Your task to perform on an android device: Open Maps and search for coffee Image 0: 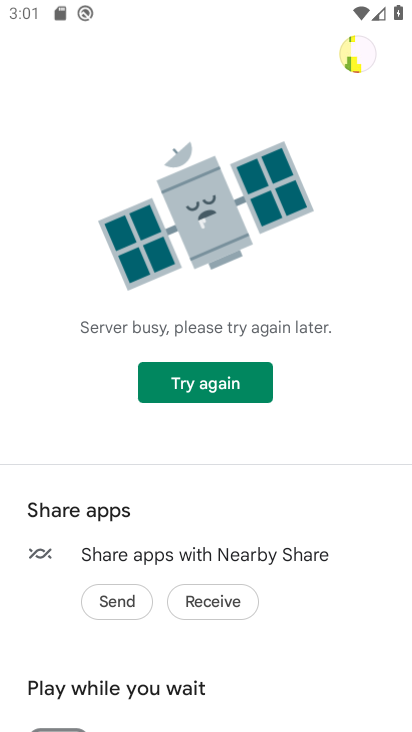
Step 0: press home button
Your task to perform on an android device: Open Maps and search for coffee Image 1: 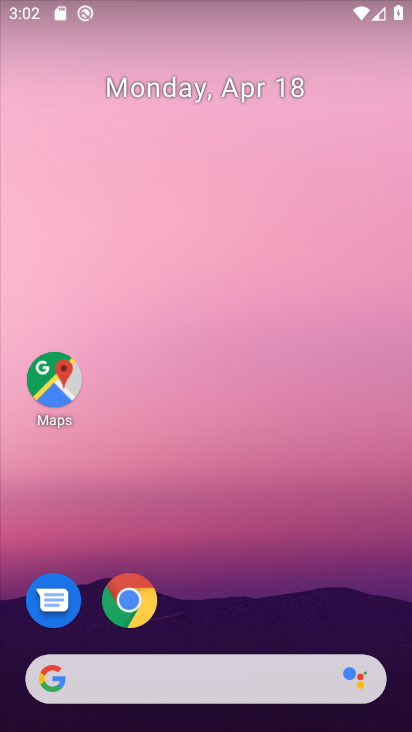
Step 1: drag from (139, 592) to (356, 79)
Your task to perform on an android device: Open Maps and search for coffee Image 2: 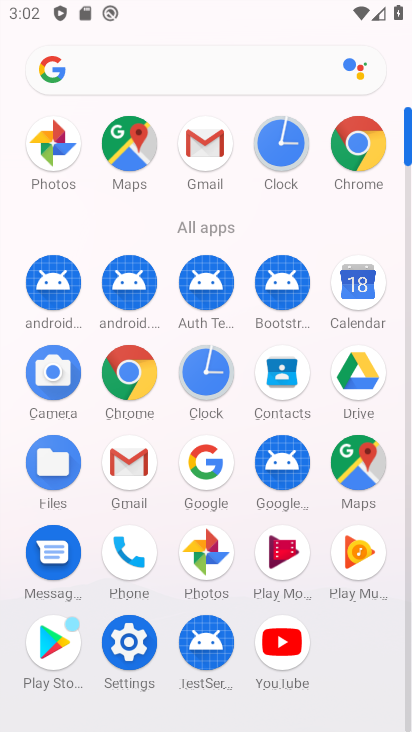
Step 2: click (133, 147)
Your task to perform on an android device: Open Maps and search for coffee Image 3: 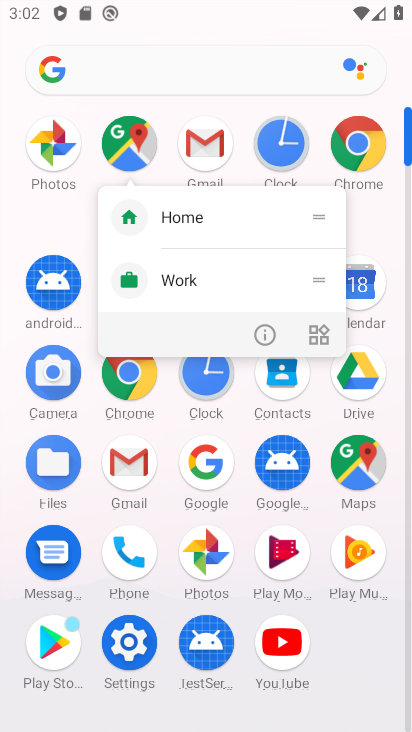
Step 3: click (128, 149)
Your task to perform on an android device: Open Maps and search for coffee Image 4: 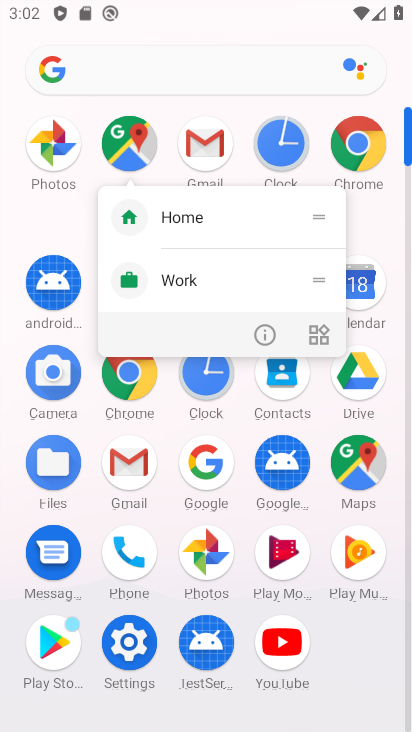
Step 4: click (128, 149)
Your task to perform on an android device: Open Maps and search for coffee Image 5: 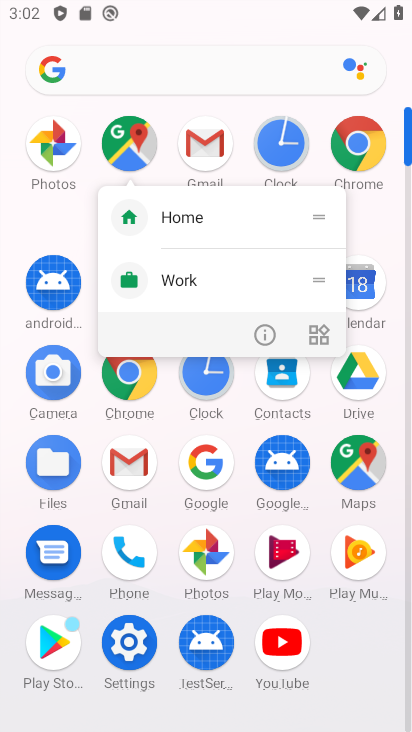
Step 5: click (126, 143)
Your task to perform on an android device: Open Maps and search for coffee Image 6: 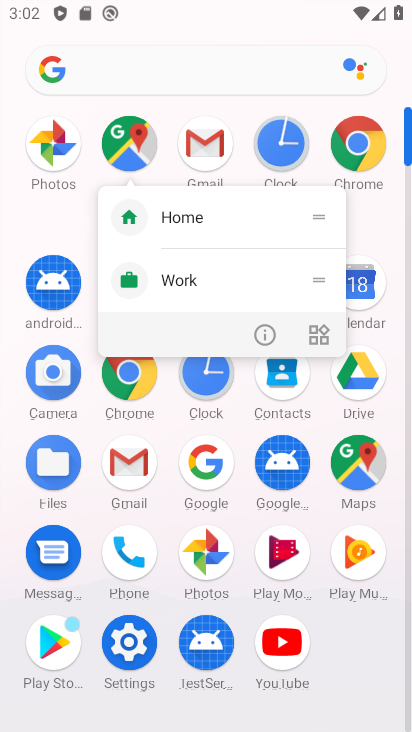
Step 6: click (125, 146)
Your task to perform on an android device: Open Maps and search for coffee Image 7: 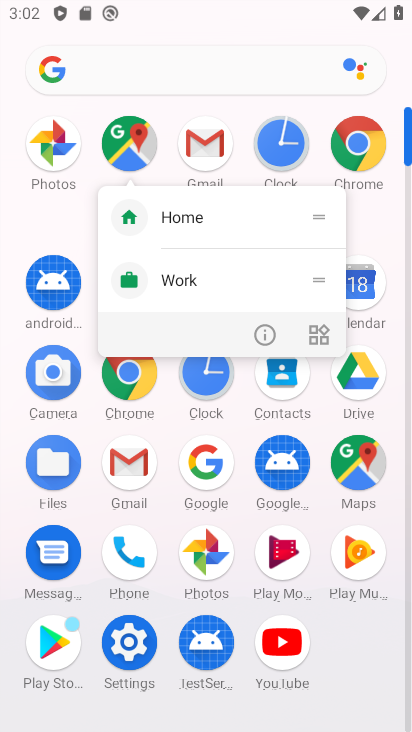
Step 7: click (122, 146)
Your task to perform on an android device: Open Maps and search for coffee Image 8: 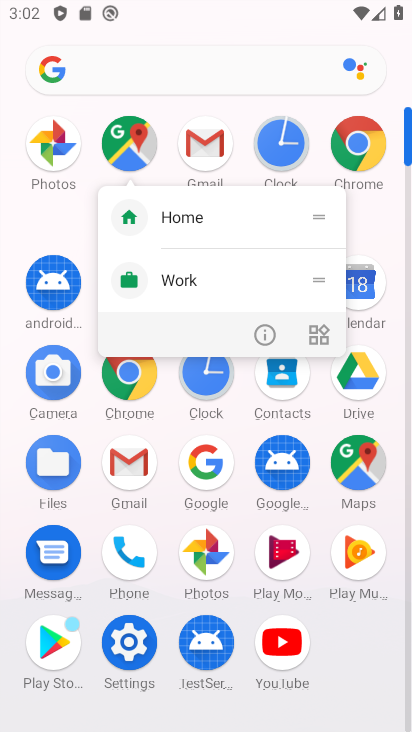
Step 8: click (127, 151)
Your task to perform on an android device: Open Maps and search for coffee Image 9: 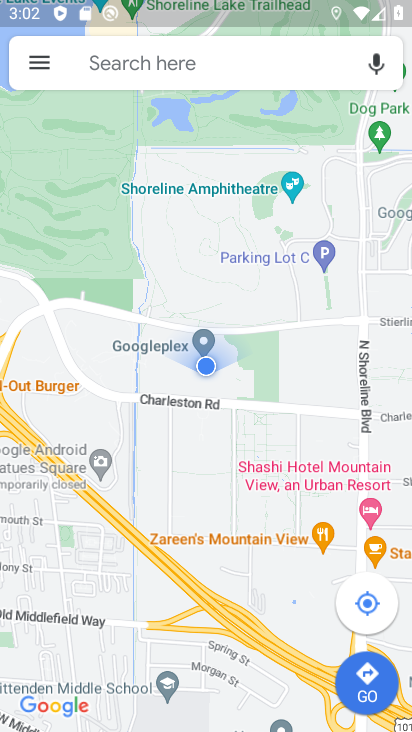
Step 9: click (139, 59)
Your task to perform on an android device: Open Maps and search for coffee Image 10: 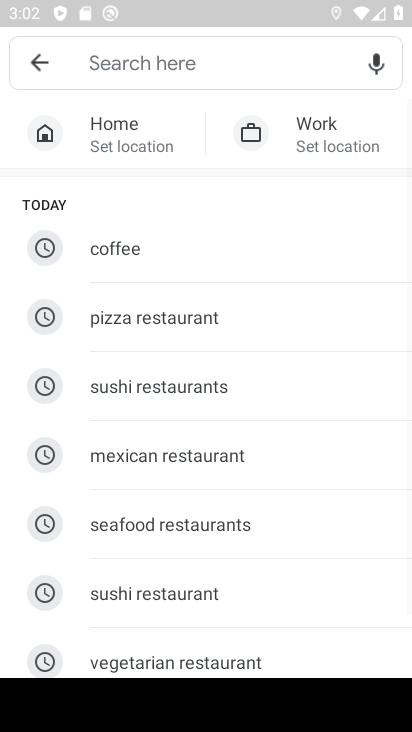
Step 10: click (117, 249)
Your task to perform on an android device: Open Maps and search for coffee Image 11: 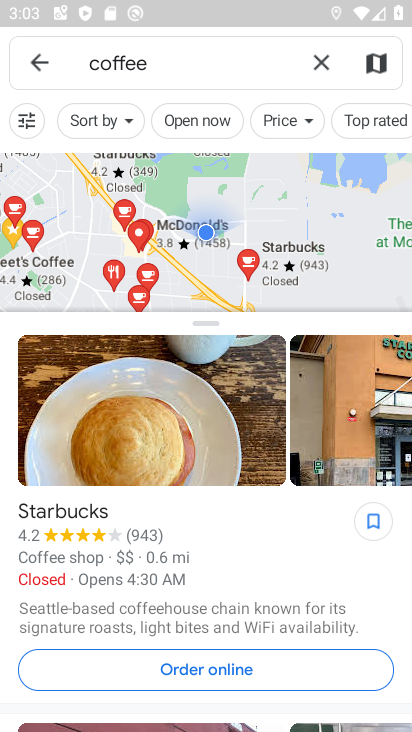
Step 11: task complete